Your task to perform on an android device: Go to Amazon Image 0: 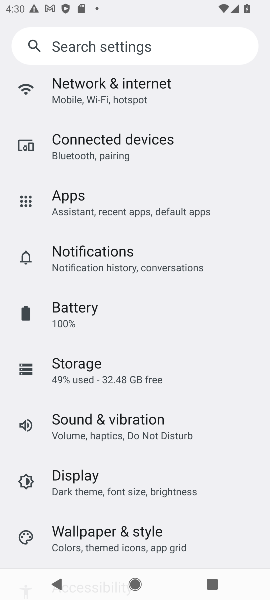
Step 0: press home button
Your task to perform on an android device: Go to Amazon Image 1: 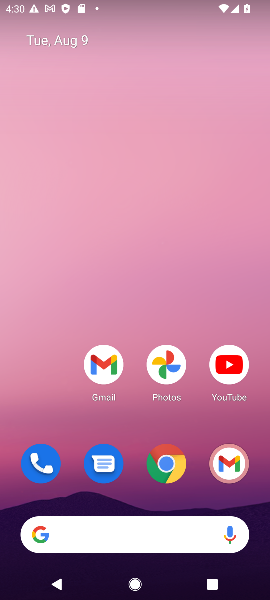
Step 1: drag from (135, 517) to (133, 148)
Your task to perform on an android device: Go to Amazon Image 2: 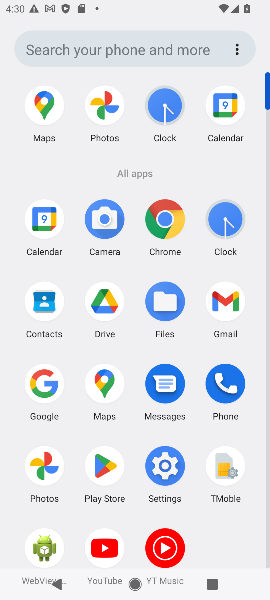
Step 2: click (42, 385)
Your task to perform on an android device: Go to Amazon Image 3: 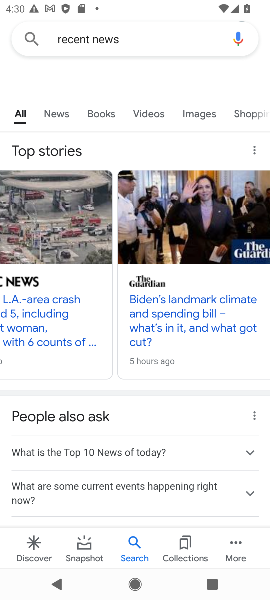
Step 3: click (137, 37)
Your task to perform on an android device: Go to Amazon Image 4: 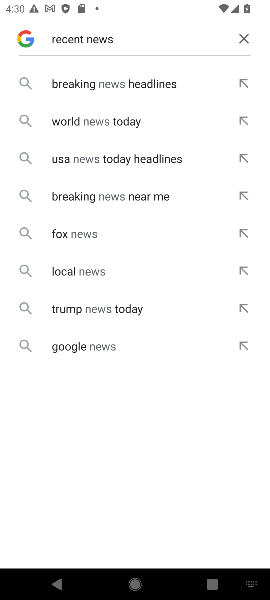
Step 4: click (242, 40)
Your task to perform on an android device: Go to Amazon Image 5: 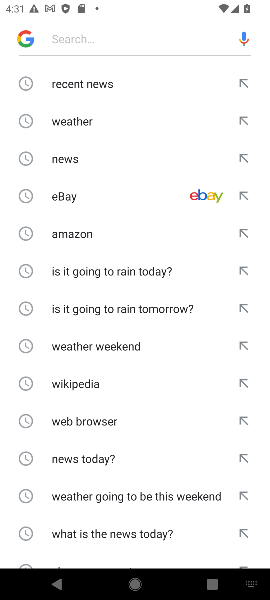
Step 5: click (71, 235)
Your task to perform on an android device: Go to Amazon Image 6: 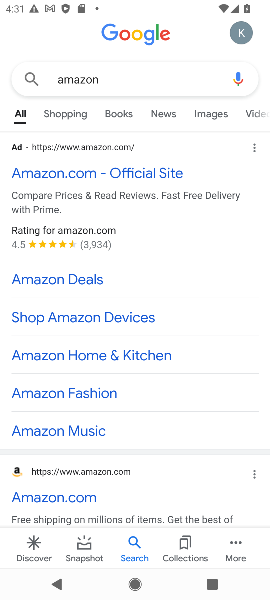
Step 6: click (80, 176)
Your task to perform on an android device: Go to Amazon Image 7: 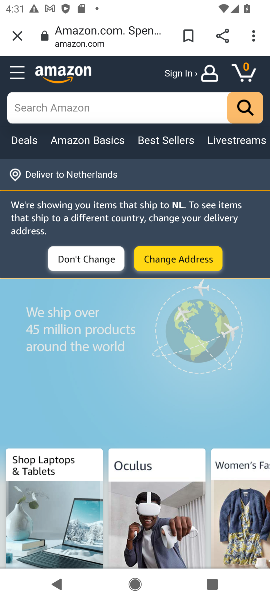
Step 7: task complete